Your task to perform on an android device: turn on data saver in the chrome app Image 0: 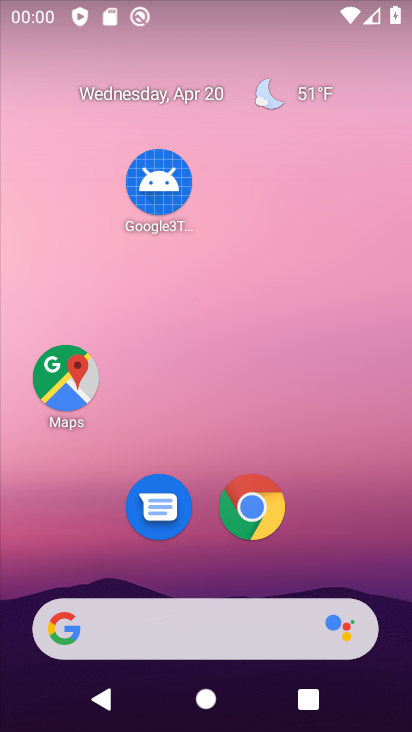
Step 0: click (260, 519)
Your task to perform on an android device: turn on data saver in the chrome app Image 1: 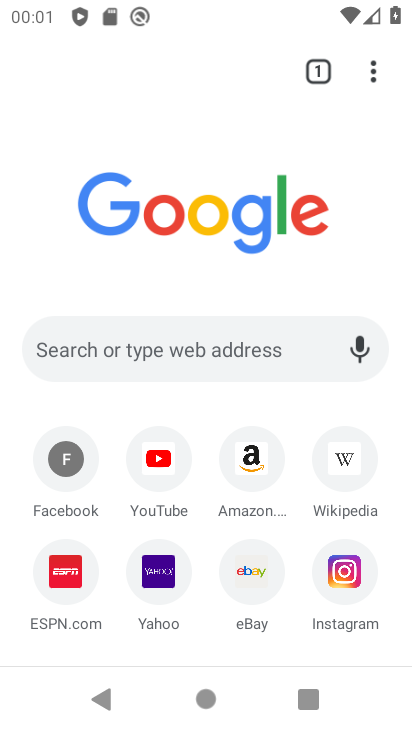
Step 1: click (370, 71)
Your task to perform on an android device: turn on data saver in the chrome app Image 2: 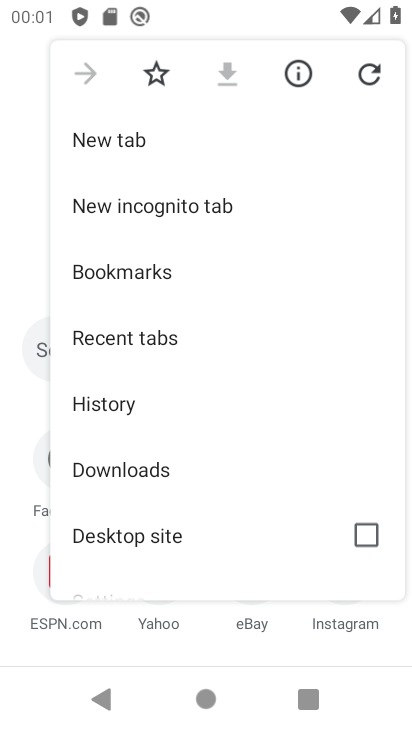
Step 2: drag from (196, 519) to (207, 6)
Your task to perform on an android device: turn on data saver in the chrome app Image 3: 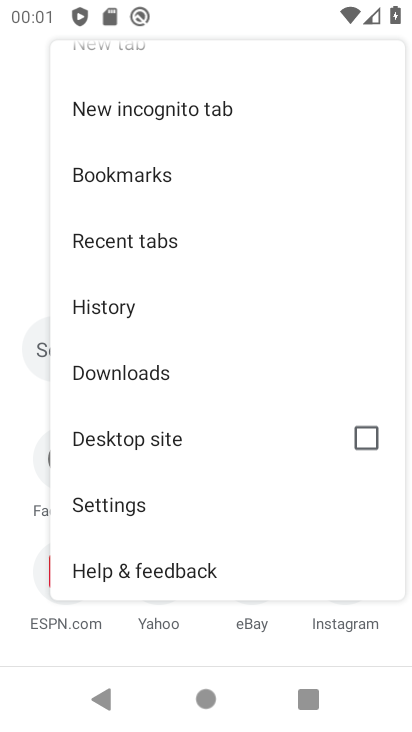
Step 3: click (112, 502)
Your task to perform on an android device: turn on data saver in the chrome app Image 4: 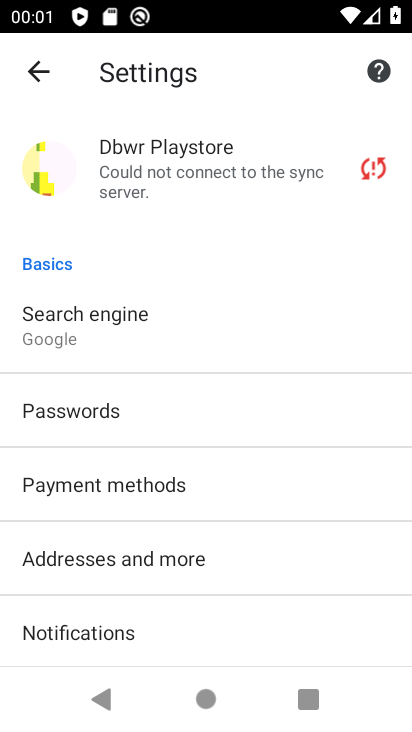
Step 4: drag from (152, 593) to (183, 113)
Your task to perform on an android device: turn on data saver in the chrome app Image 5: 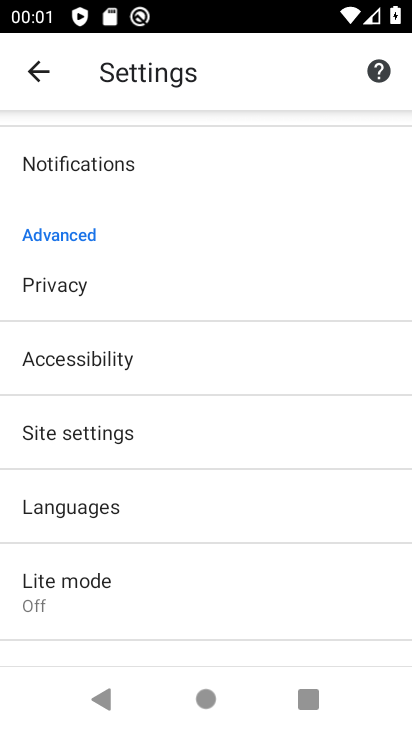
Step 5: click (82, 580)
Your task to perform on an android device: turn on data saver in the chrome app Image 6: 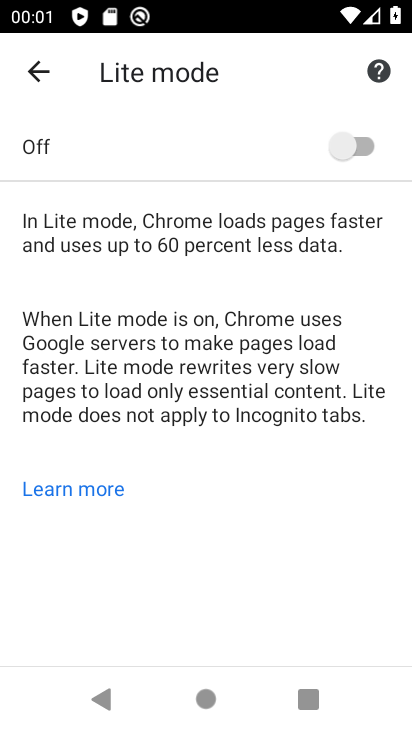
Step 6: click (352, 143)
Your task to perform on an android device: turn on data saver in the chrome app Image 7: 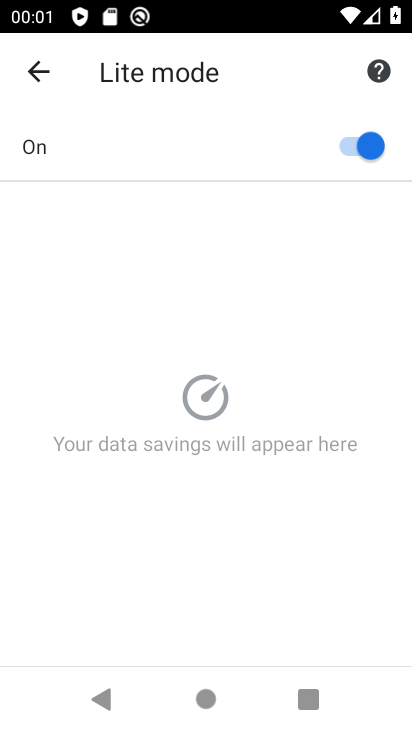
Step 7: task complete